Your task to perform on an android device: Go to accessibility settings Image 0: 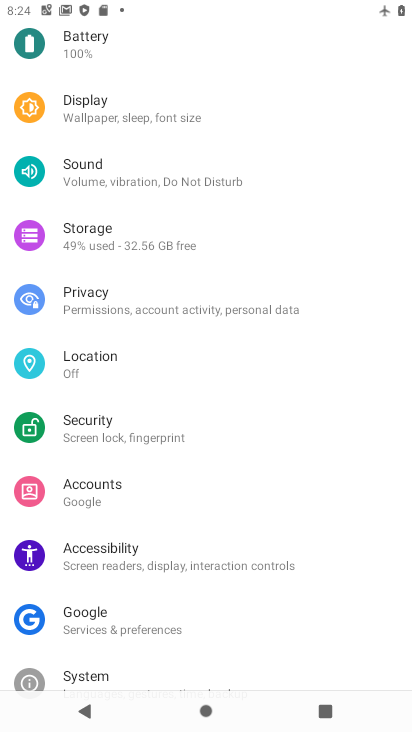
Step 0: press home button
Your task to perform on an android device: Go to accessibility settings Image 1: 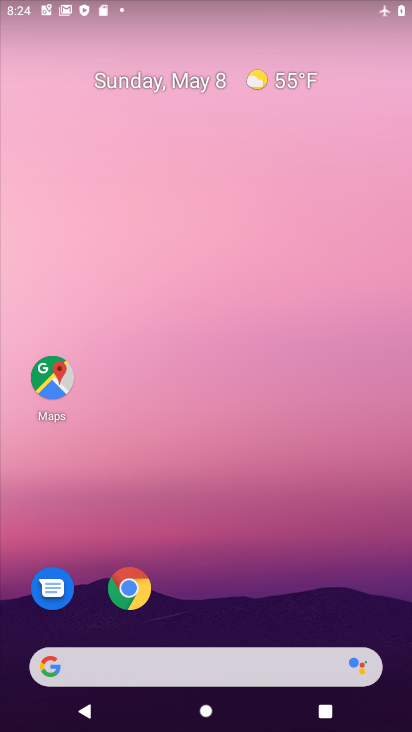
Step 1: drag from (329, 595) to (226, 53)
Your task to perform on an android device: Go to accessibility settings Image 2: 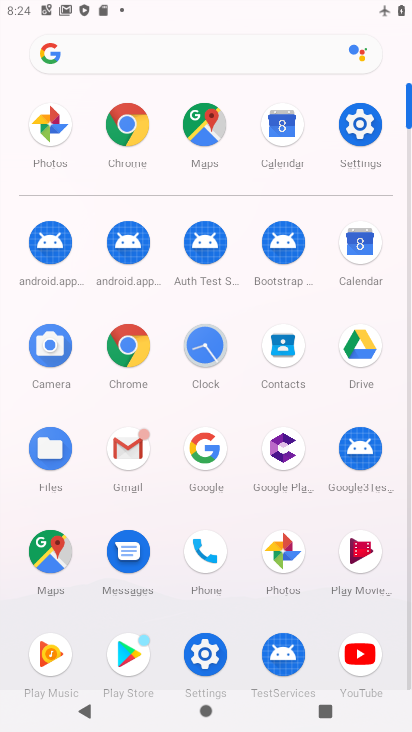
Step 2: click (206, 638)
Your task to perform on an android device: Go to accessibility settings Image 3: 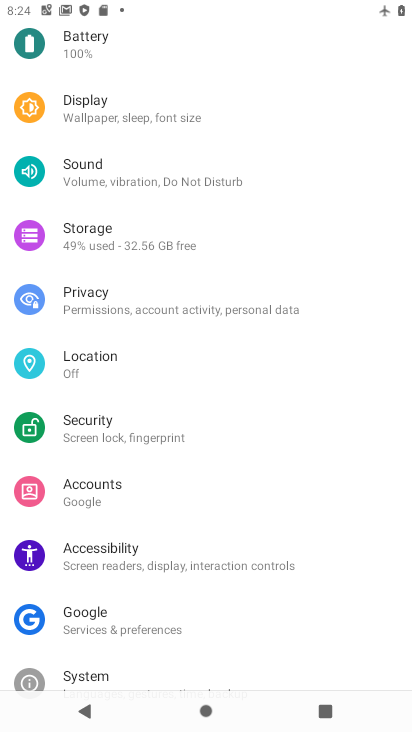
Step 3: drag from (90, 600) to (151, 356)
Your task to perform on an android device: Go to accessibility settings Image 4: 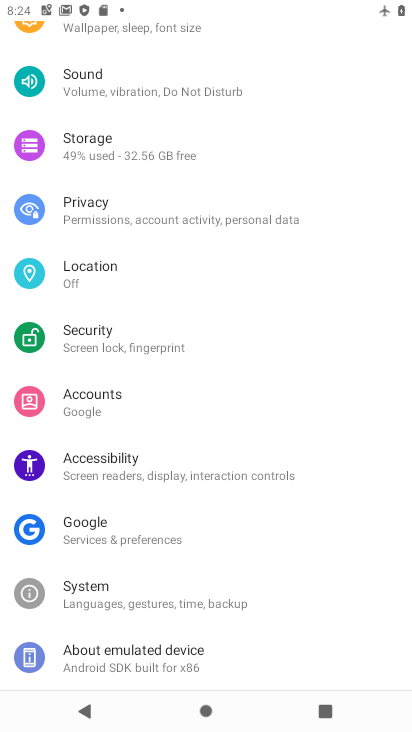
Step 4: click (138, 476)
Your task to perform on an android device: Go to accessibility settings Image 5: 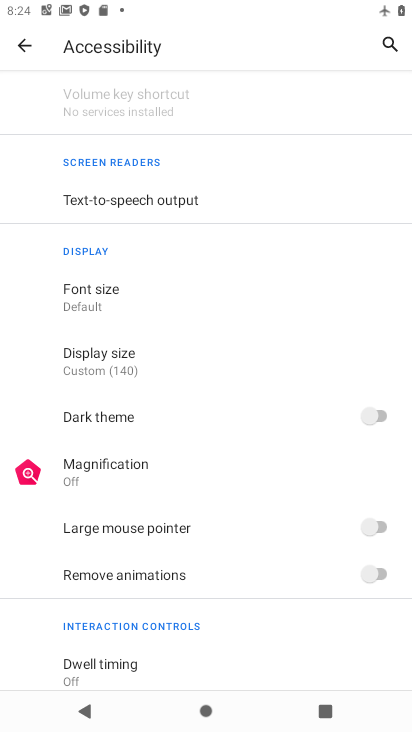
Step 5: task complete